Your task to perform on an android device: turn notification dots off Image 0: 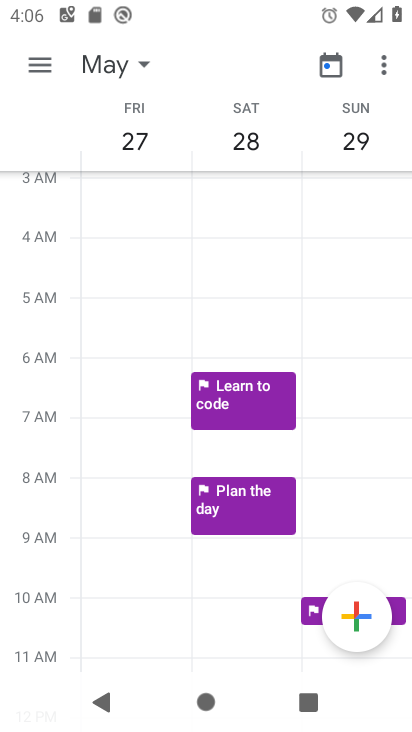
Step 0: press home button
Your task to perform on an android device: turn notification dots off Image 1: 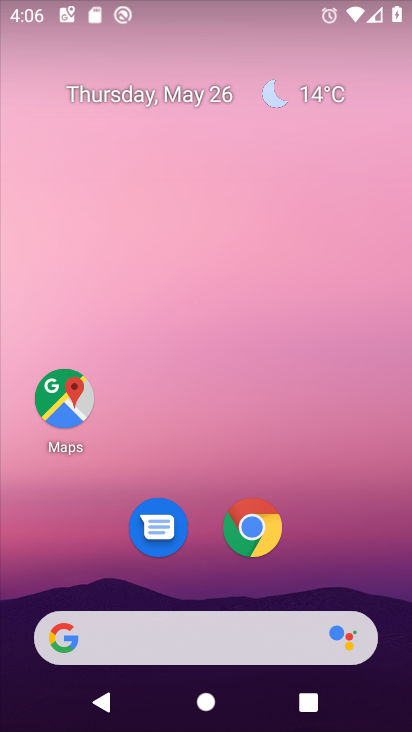
Step 1: drag from (395, 562) to (241, 138)
Your task to perform on an android device: turn notification dots off Image 2: 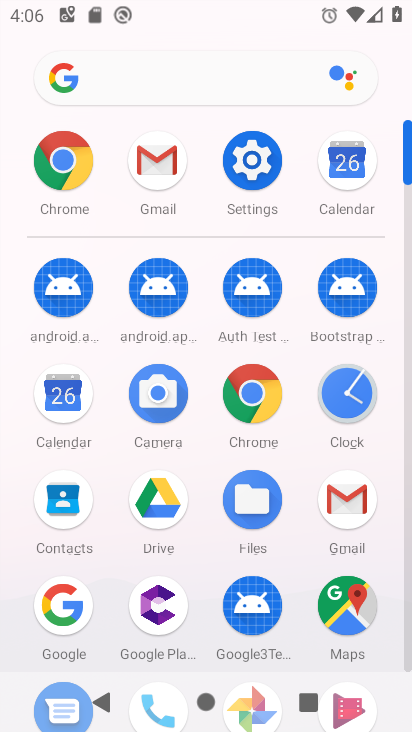
Step 2: click (261, 170)
Your task to perform on an android device: turn notification dots off Image 3: 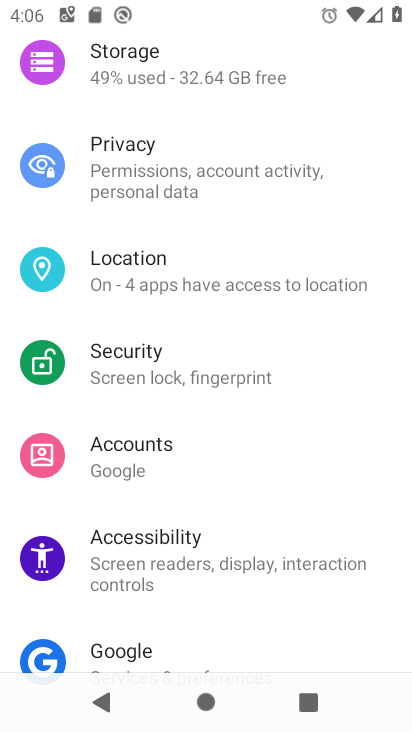
Step 3: drag from (250, 118) to (274, 538)
Your task to perform on an android device: turn notification dots off Image 4: 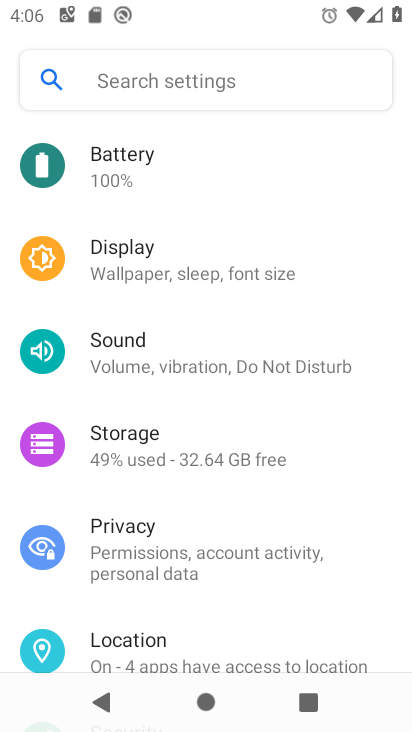
Step 4: drag from (251, 221) to (248, 582)
Your task to perform on an android device: turn notification dots off Image 5: 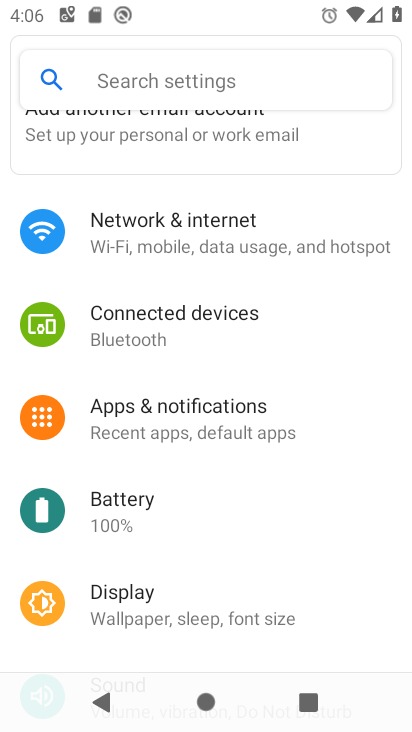
Step 5: click (244, 435)
Your task to perform on an android device: turn notification dots off Image 6: 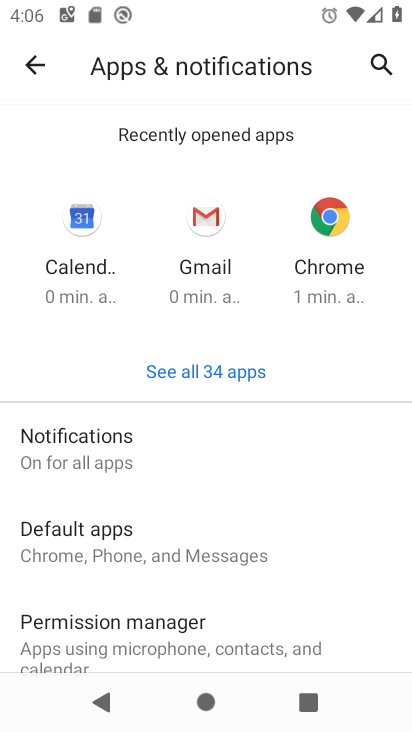
Step 6: click (190, 465)
Your task to perform on an android device: turn notification dots off Image 7: 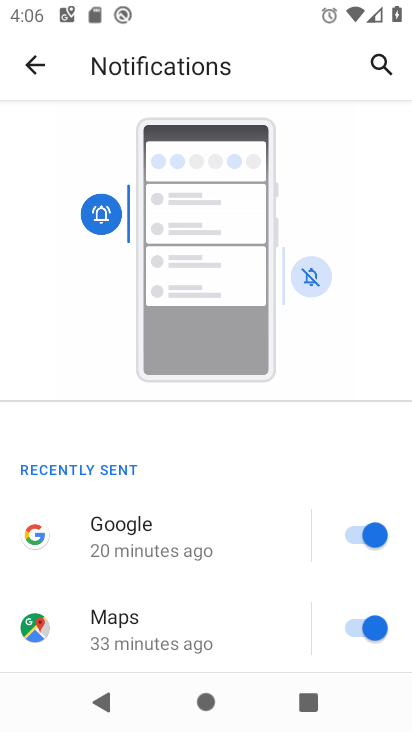
Step 7: drag from (251, 646) to (219, 298)
Your task to perform on an android device: turn notification dots off Image 8: 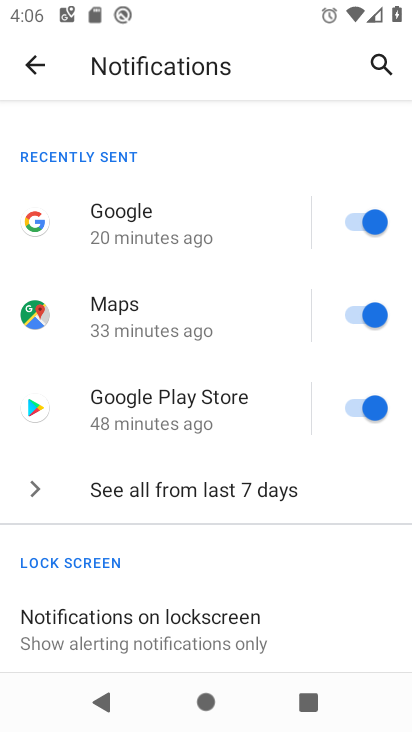
Step 8: drag from (240, 567) to (195, 226)
Your task to perform on an android device: turn notification dots off Image 9: 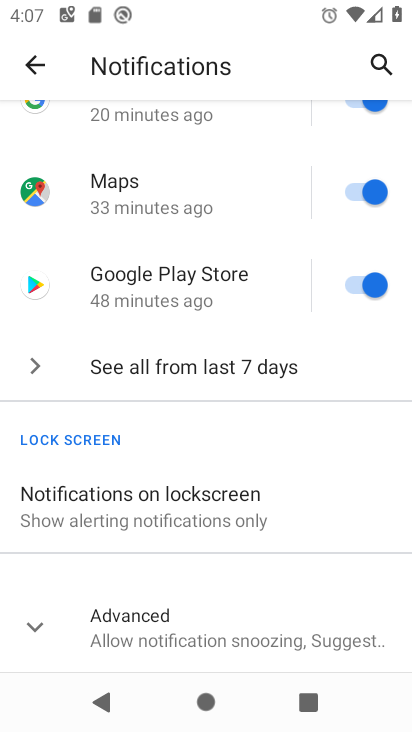
Step 9: click (223, 631)
Your task to perform on an android device: turn notification dots off Image 10: 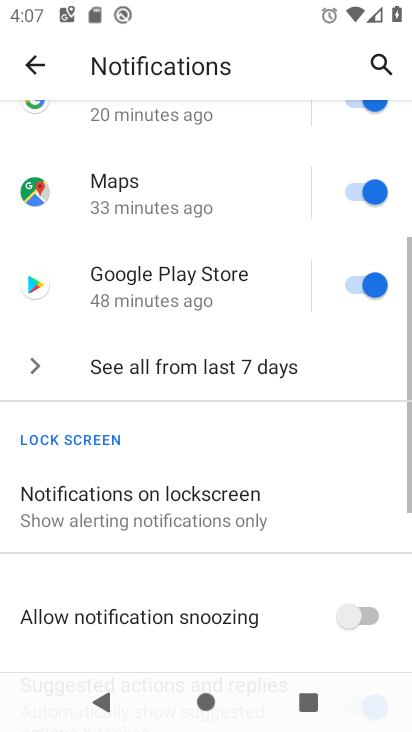
Step 10: drag from (223, 631) to (140, 238)
Your task to perform on an android device: turn notification dots off Image 11: 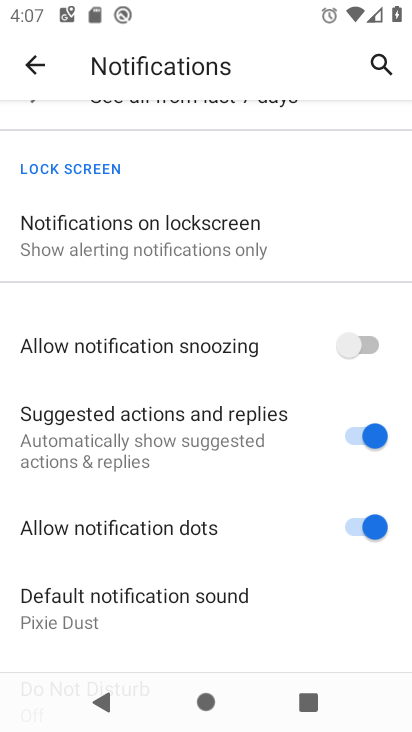
Step 11: click (358, 524)
Your task to perform on an android device: turn notification dots off Image 12: 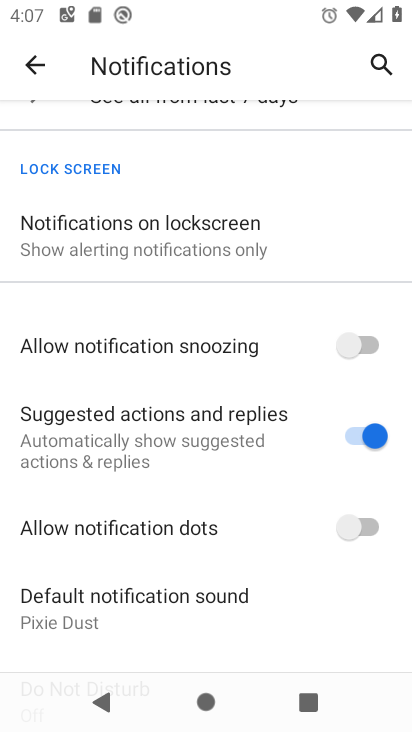
Step 12: task complete